Your task to perform on an android device: Go to Wikipedia Image 0: 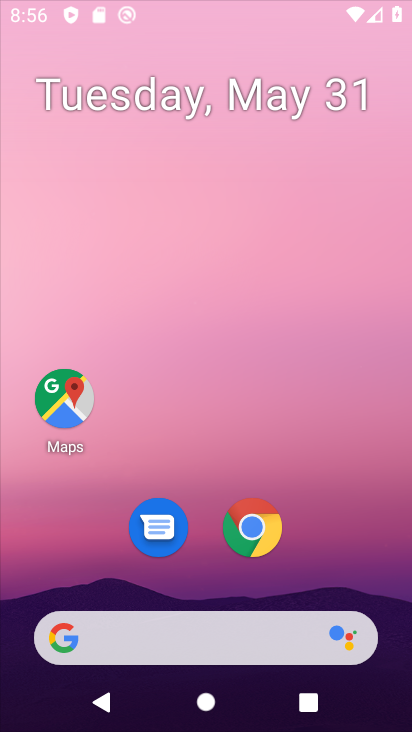
Step 0: drag from (184, 586) to (174, 182)
Your task to perform on an android device: Go to Wikipedia Image 1: 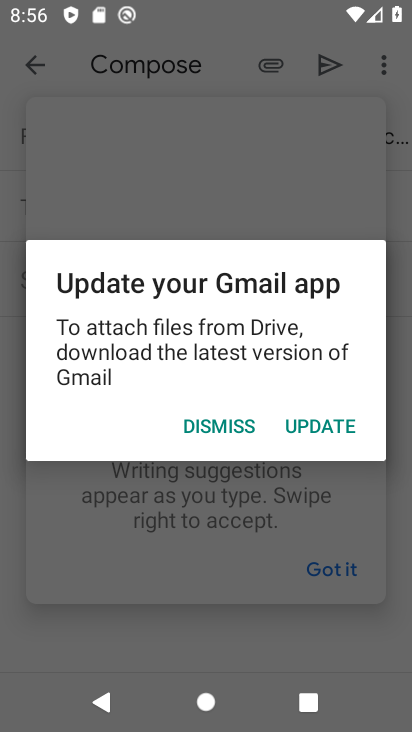
Step 1: press home button
Your task to perform on an android device: Go to Wikipedia Image 2: 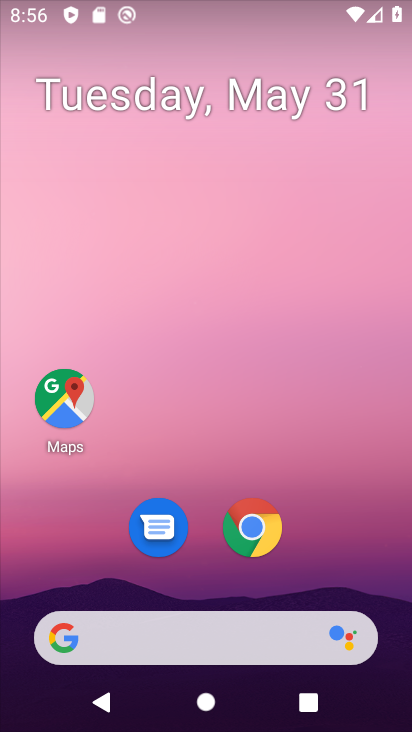
Step 2: click (255, 535)
Your task to perform on an android device: Go to Wikipedia Image 3: 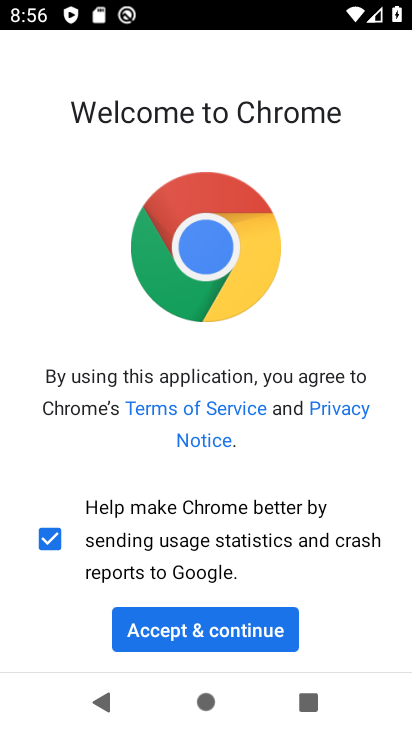
Step 3: click (218, 645)
Your task to perform on an android device: Go to Wikipedia Image 4: 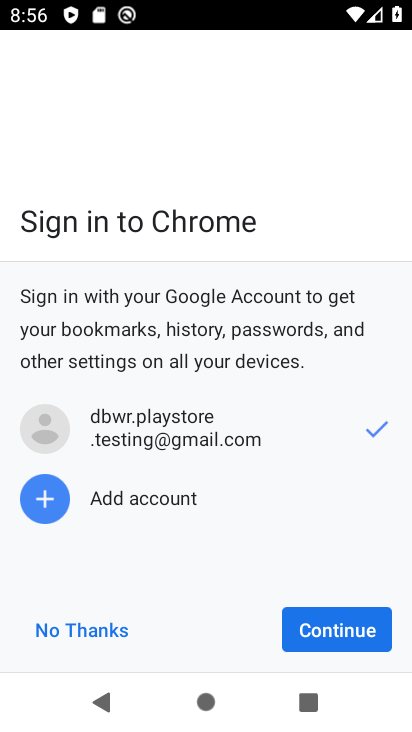
Step 4: click (300, 631)
Your task to perform on an android device: Go to Wikipedia Image 5: 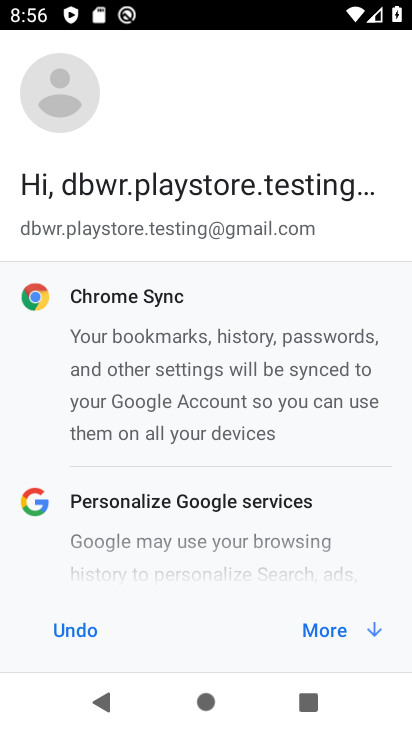
Step 5: click (320, 627)
Your task to perform on an android device: Go to Wikipedia Image 6: 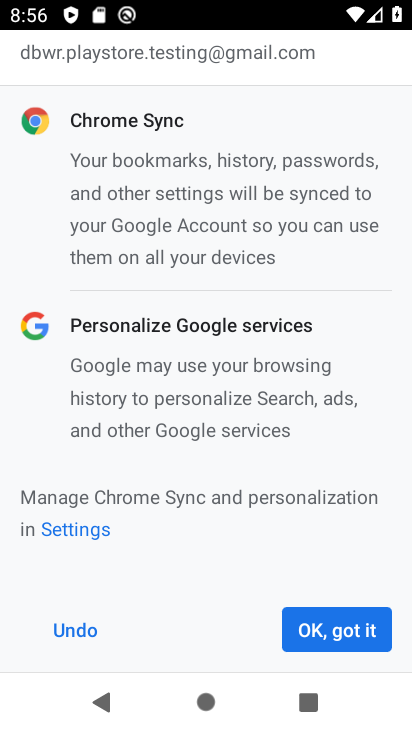
Step 6: click (320, 627)
Your task to perform on an android device: Go to Wikipedia Image 7: 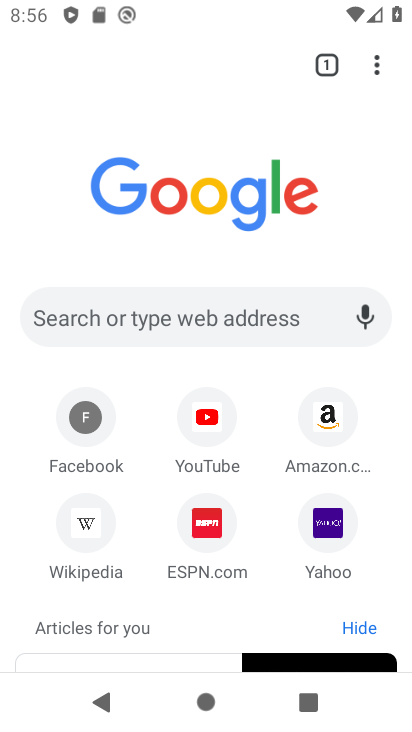
Step 7: drag from (283, 607) to (278, 369)
Your task to perform on an android device: Go to Wikipedia Image 8: 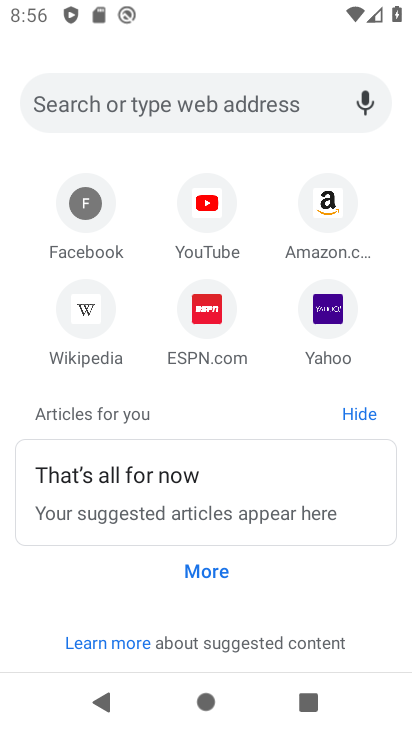
Step 8: click (83, 325)
Your task to perform on an android device: Go to Wikipedia Image 9: 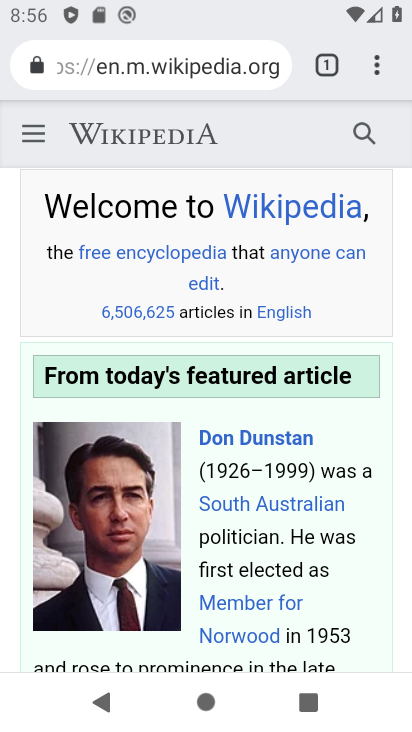
Step 9: task complete